Your task to perform on an android device: empty trash in the gmail app Image 0: 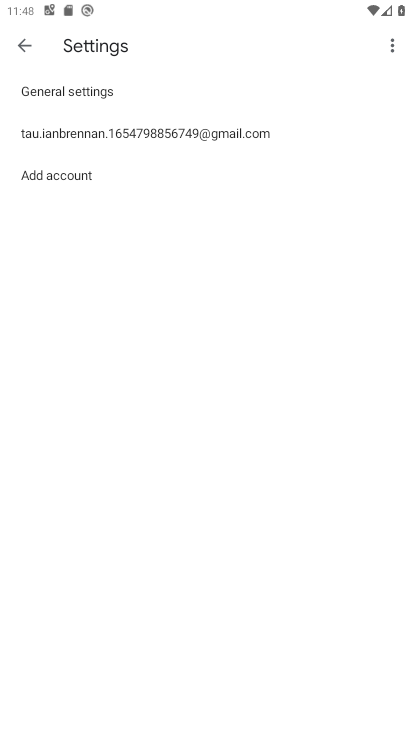
Step 0: press home button
Your task to perform on an android device: empty trash in the gmail app Image 1: 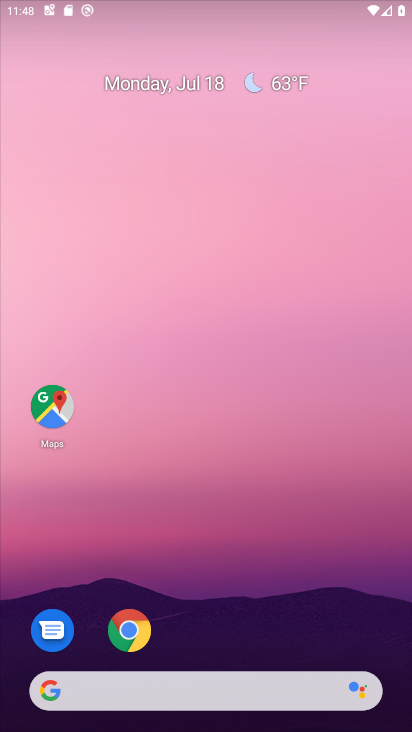
Step 1: drag from (217, 653) to (224, 194)
Your task to perform on an android device: empty trash in the gmail app Image 2: 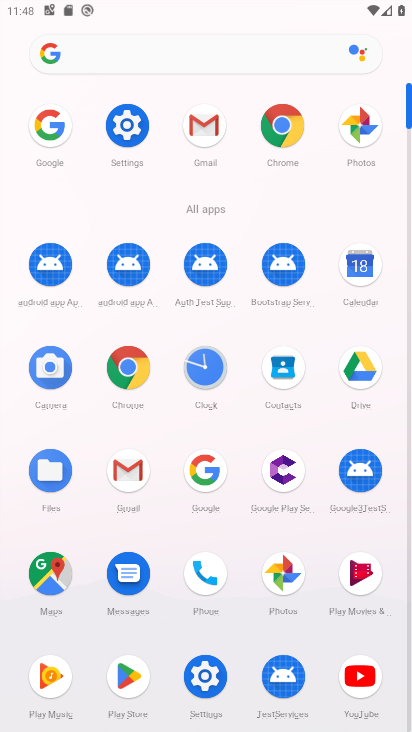
Step 2: click (208, 121)
Your task to perform on an android device: empty trash in the gmail app Image 3: 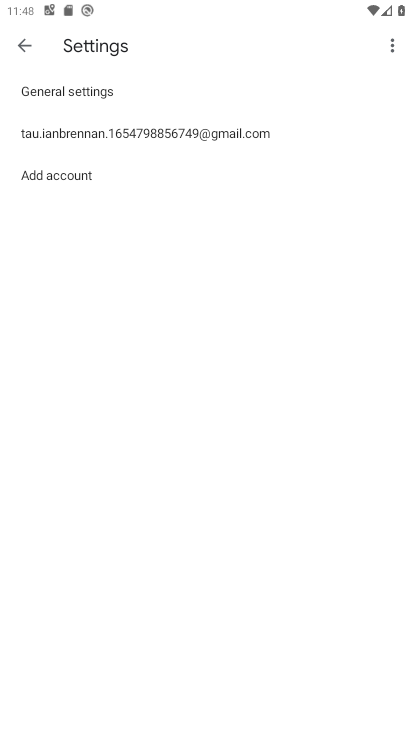
Step 3: press back button
Your task to perform on an android device: empty trash in the gmail app Image 4: 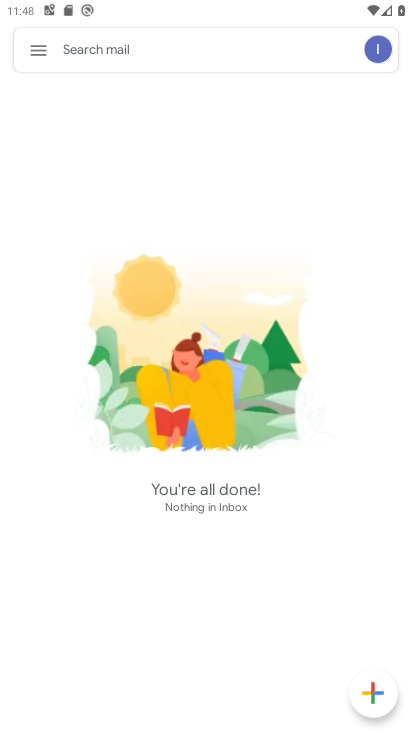
Step 4: click (36, 49)
Your task to perform on an android device: empty trash in the gmail app Image 5: 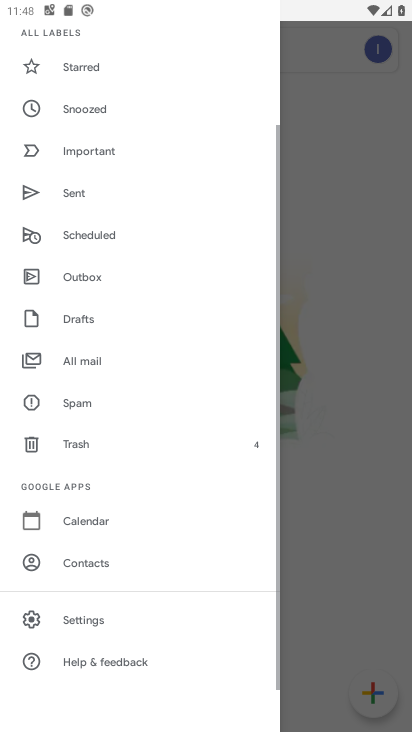
Step 5: click (102, 434)
Your task to perform on an android device: empty trash in the gmail app Image 6: 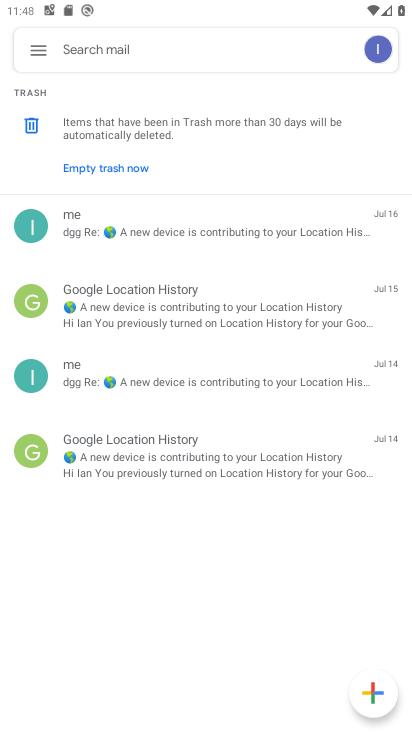
Step 6: click (107, 173)
Your task to perform on an android device: empty trash in the gmail app Image 7: 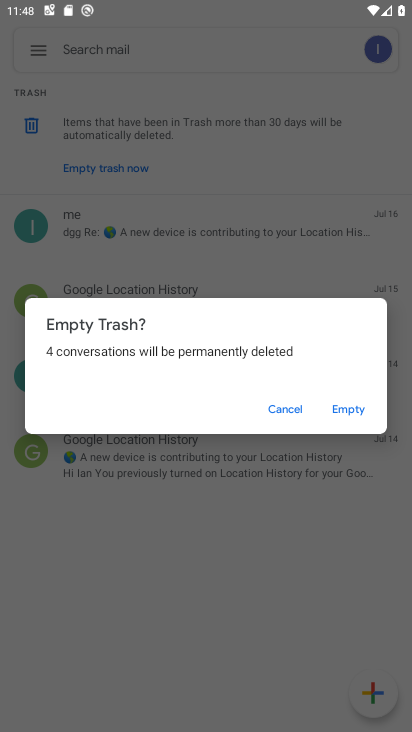
Step 7: click (352, 408)
Your task to perform on an android device: empty trash in the gmail app Image 8: 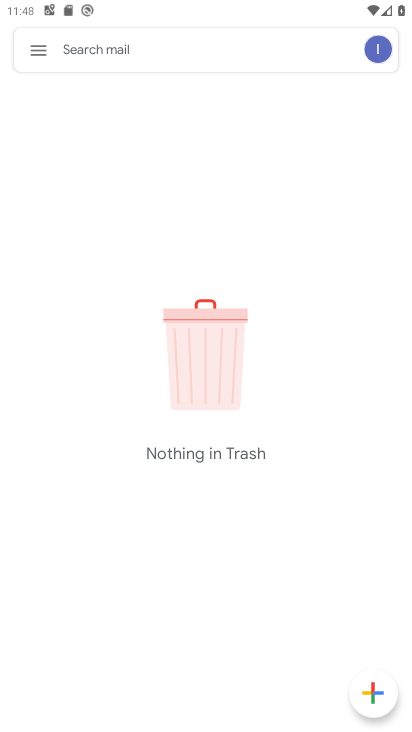
Step 8: task complete